Your task to perform on an android device: open app "Booking.com: Hotels and more" Image 0: 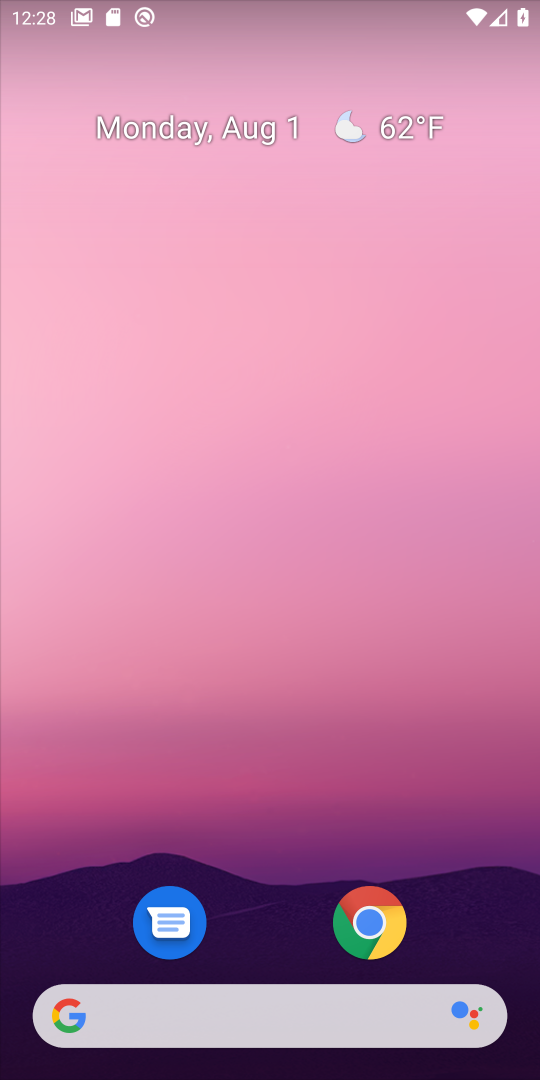
Step 0: drag from (267, 912) to (267, 82)
Your task to perform on an android device: open app "Booking.com: Hotels and more" Image 1: 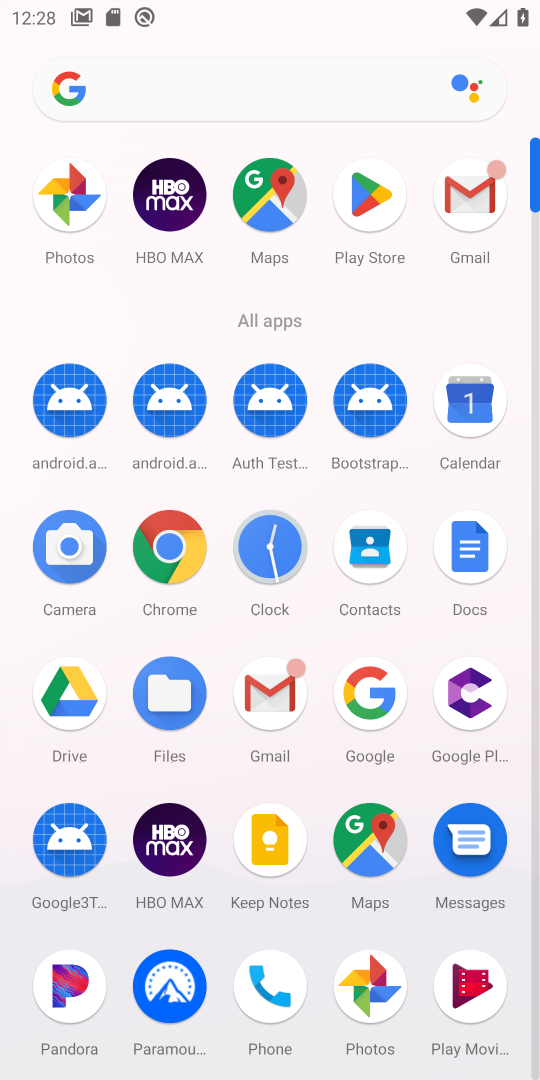
Step 1: click (369, 220)
Your task to perform on an android device: open app "Booking.com: Hotels and more" Image 2: 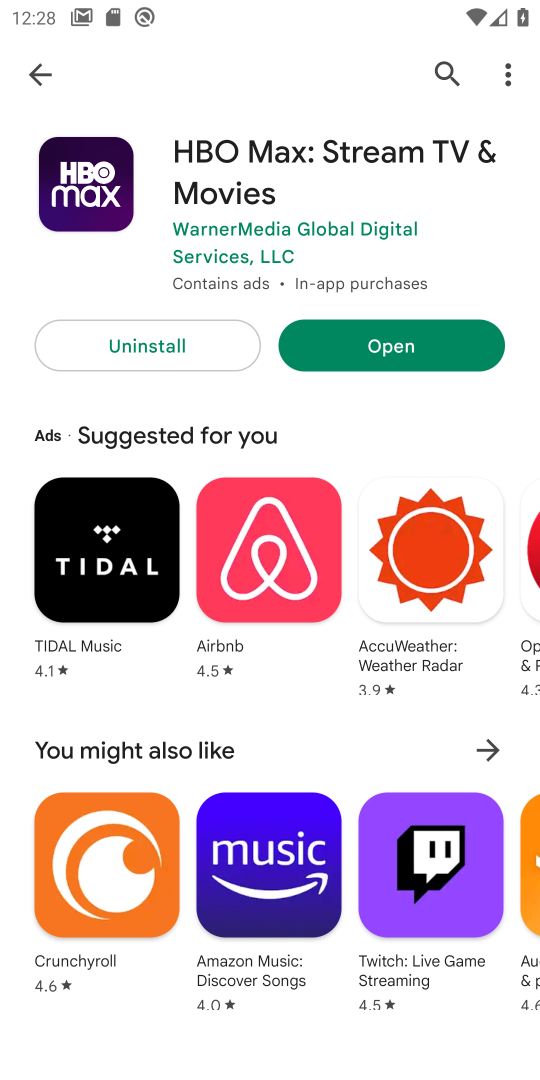
Step 2: click (436, 78)
Your task to perform on an android device: open app "Booking.com: Hotels and more" Image 3: 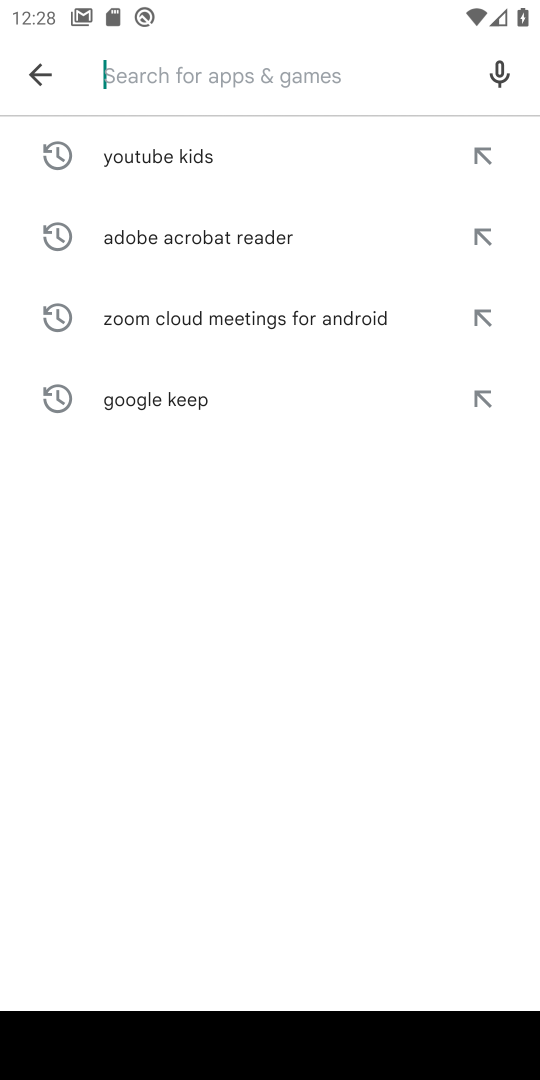
Step 3: type "Booking.com: Hotels and more"
Your task to perform on an android device: open app "Booking.com: Hotels and more" Image 4: 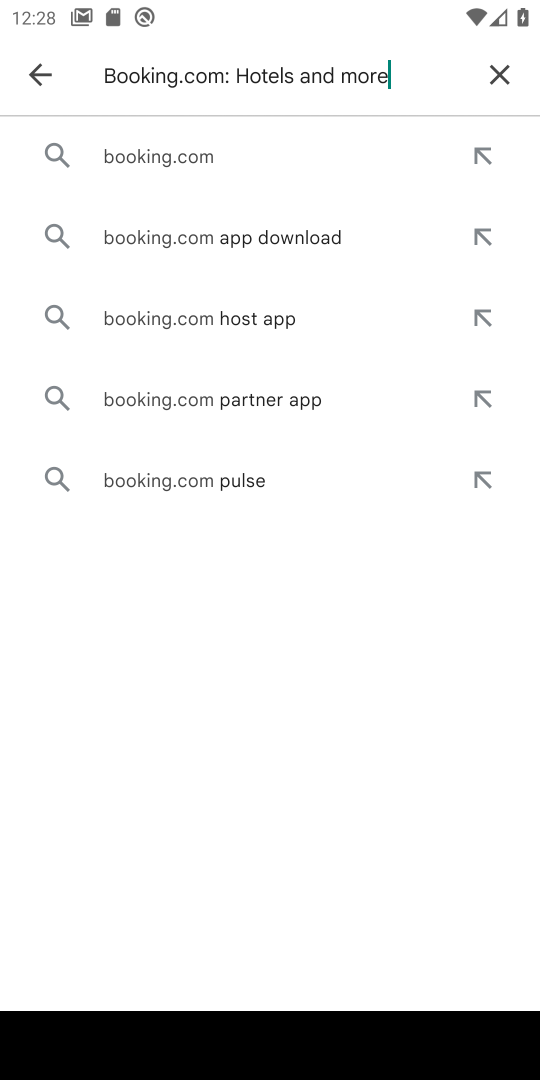
Step 4: type ""
Your task to perform on an android device: open app "Booking.com: Hotels and more" Image 5: 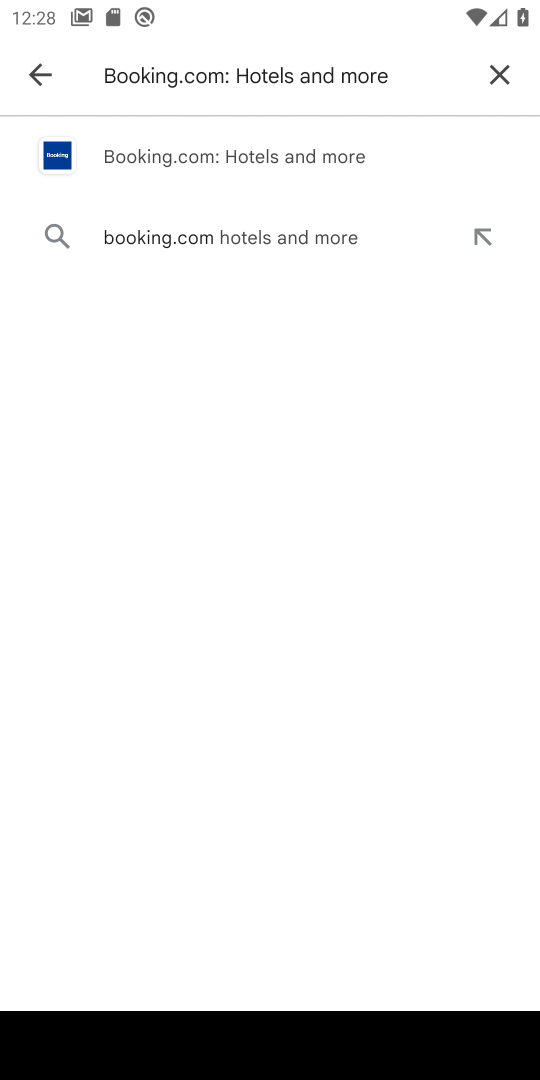
Step 5: click (341, 161)
Your task to perform on an android device: open app "Booking.com: Hotels and more" Image 6: 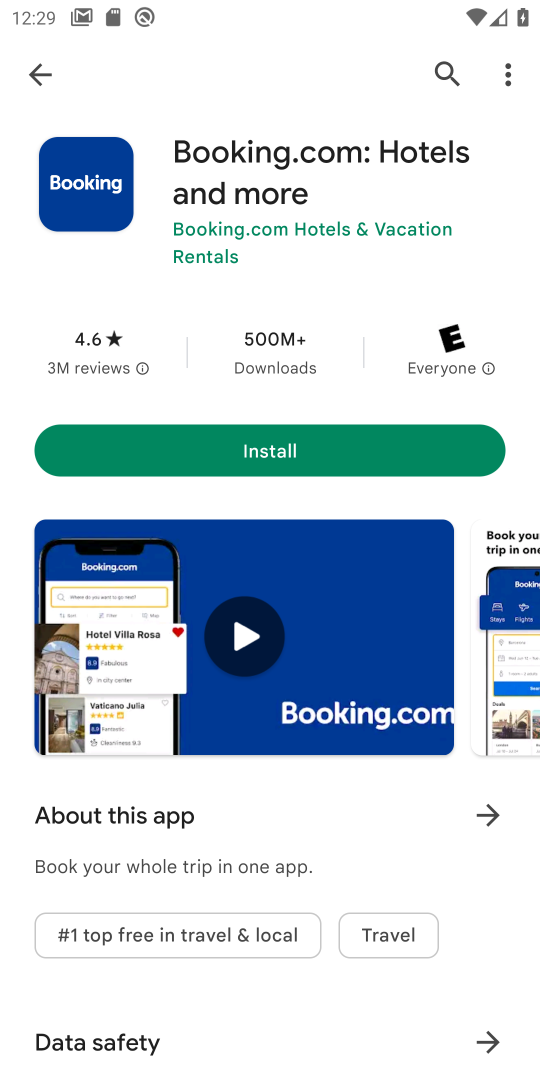
Step 6: task complete